Your task to perform on an android device: turn on notifications settings in the gmail app Image 0: 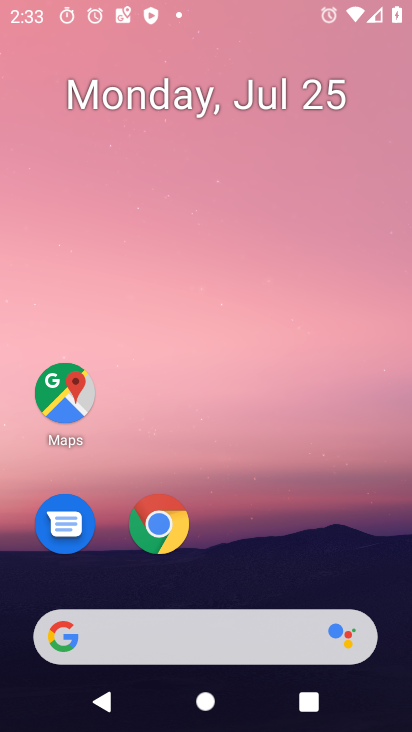
Step 0: press home button
Your task to perform on an android device: turn on notifications settings in the gmail app Image 1: 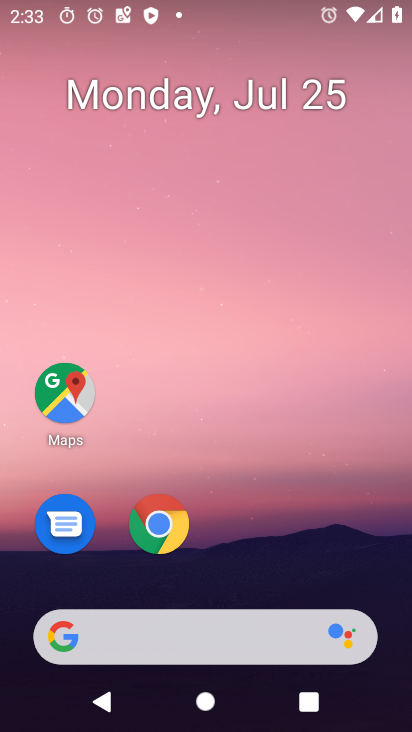
Step 1: drag from (314, 570) to (327, 9)
Your task to perform on an android device: turn on notifications settings in the gmail app Image 2: 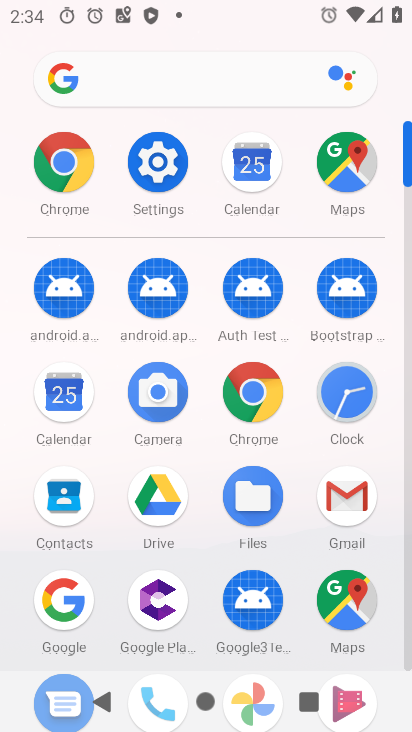
Step 2: click (350, 497)
Your task to perform on an android device: turn on notifications settings in the gmail app Image 3: 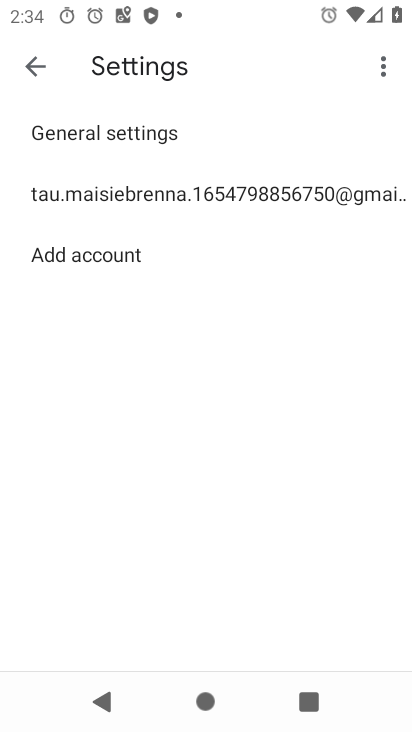
Step 3: click (81, 130)
Your task to perform on an android device: turn on notifications settings in the gmail app Image 4: 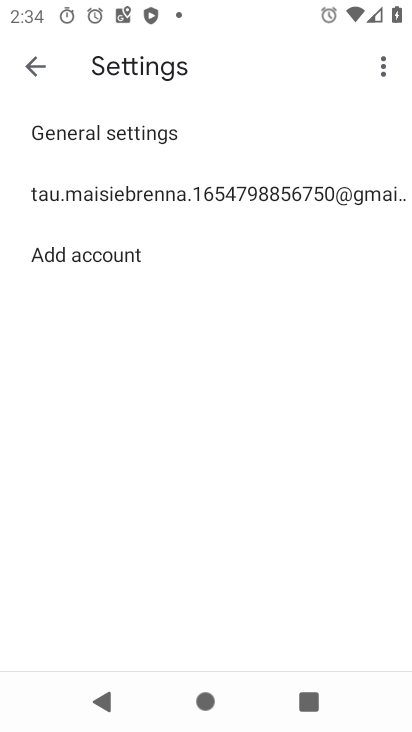
Step 4: click (120, 130)
Your task to perform on an android device: turn on notifications settings in the gmail app Image 5: 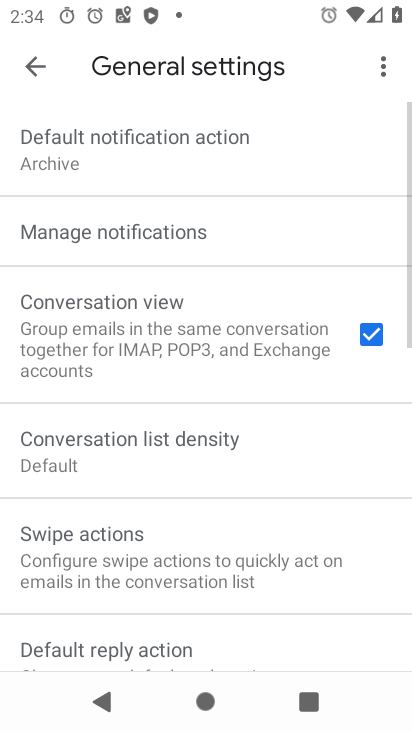
Step 5: click (113, 229)
Your task to perform on an android device: turn on notifications settings in the gmail app Image 6: 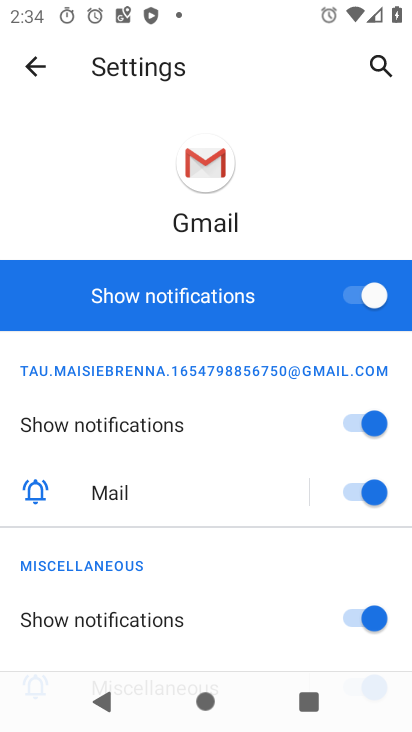
Step 6: task complete